Your task to perform on an android device: Open the calendar app, open the side menu, and click the "Day" option Image 0: 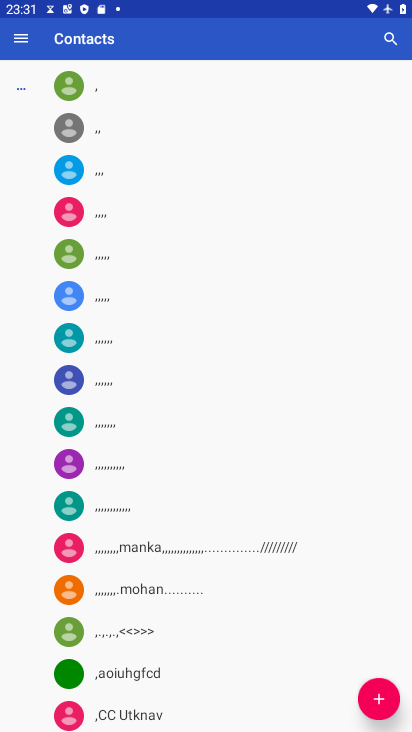
Step 0: press home button
Your task to perform on an android device: Open the calendar app, open the side menu, and click the "Day" option Image 1: 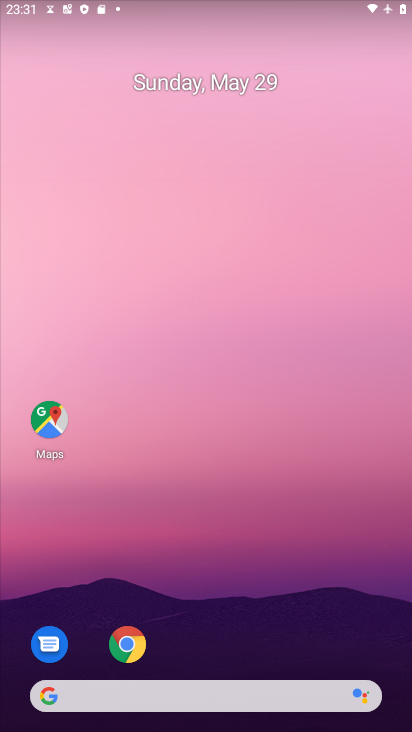
Step 1: drag from (119, 591) to (154, 292)
Your task to perform on an android device: Open the calendar app, open the side menu, and click the "Day" option Image 2: 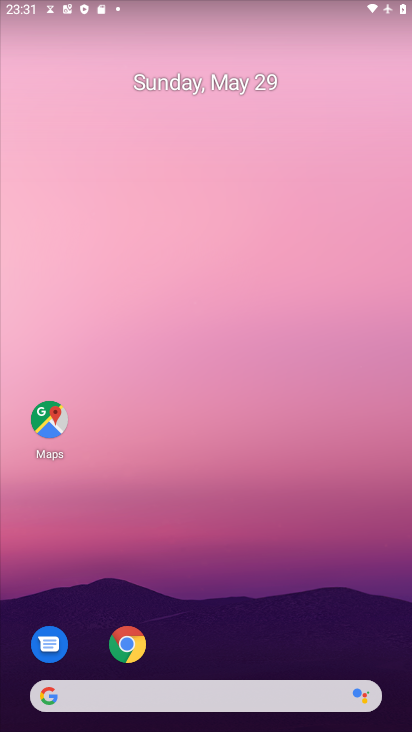
Step 2: drag from (156, 627) to (232, 221)
Your task to perform on an android device: Open the calendar app, open the side menu, and click the "Day" option Image 3: 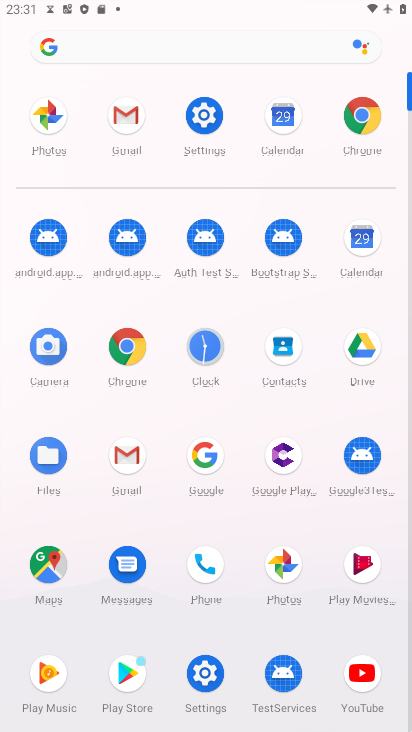
Step 3: click (284, 119)
Your task to perform on an android device: Open the calendar app, open the side menu, and click the "Day" option Image 4: 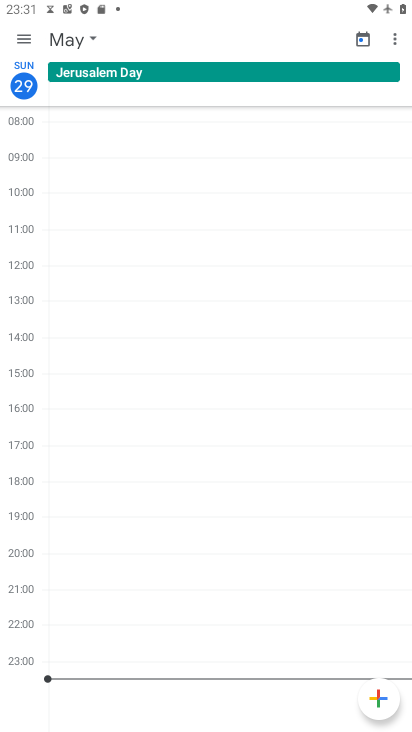
Step 4: click (18, 34)
Your task to perform on an android device: Open the calendar app, open the side menu, and click the "Day" option Image 5: 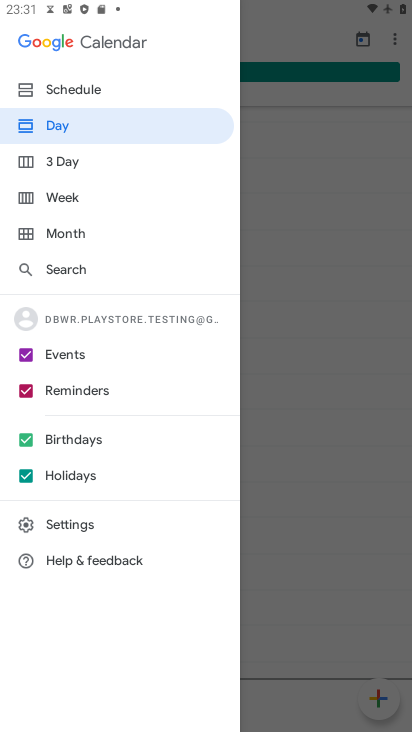
Step 5: click (72, 124)
Your task to perform on an android device: Open the calendar app, open the side menu, and click the "Day" option Image 6: 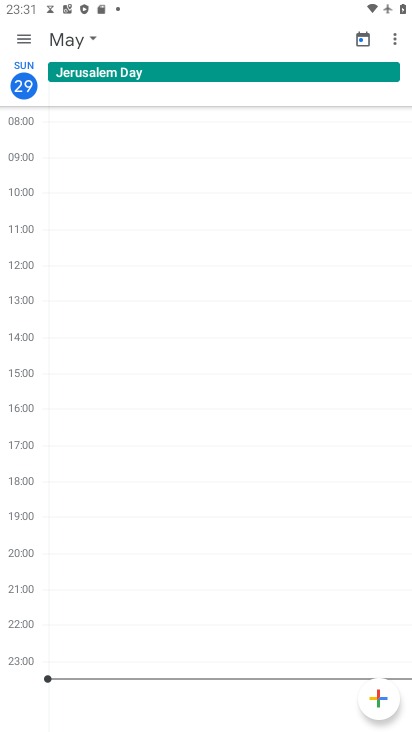
Step 6: task complete